Your task to perform on an android device: create a new album in the google photos Image 0: 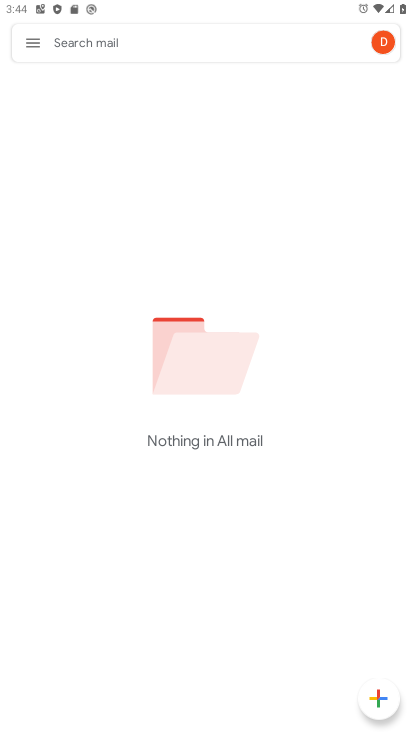
Step 0: press home button
Your task to perform on an android device: create a new album in the google photos Image 1: 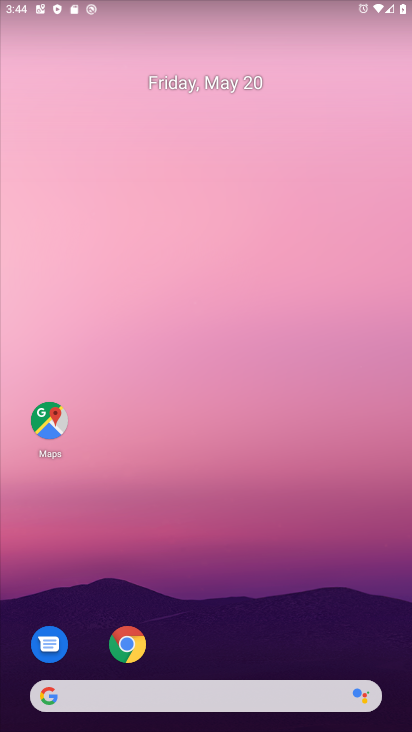
Step 1: drag from (266, 626) to (252, 67)
Your task to perform on an android device: create a new album in the google photos Image 2: 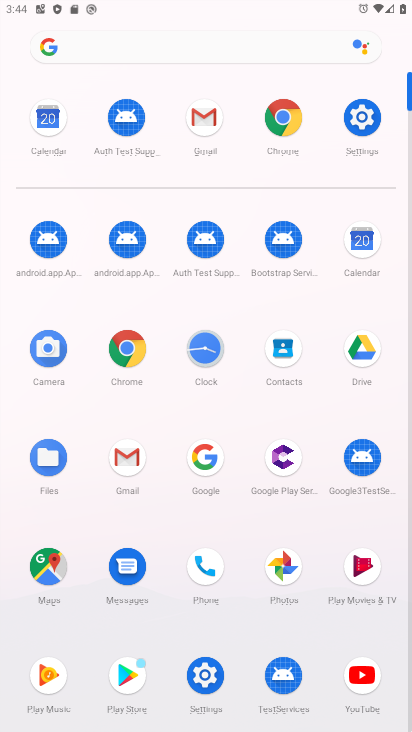
Step 2: click (283, 588)
Your task to perform on an android device: create a new album in the google photos Image 3: 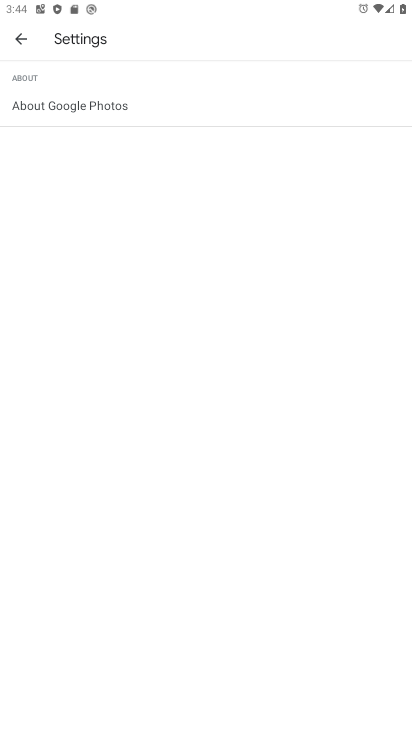
Step 3: press home button
Your task to perform on an android device: create a new album in the google photos Image 4: 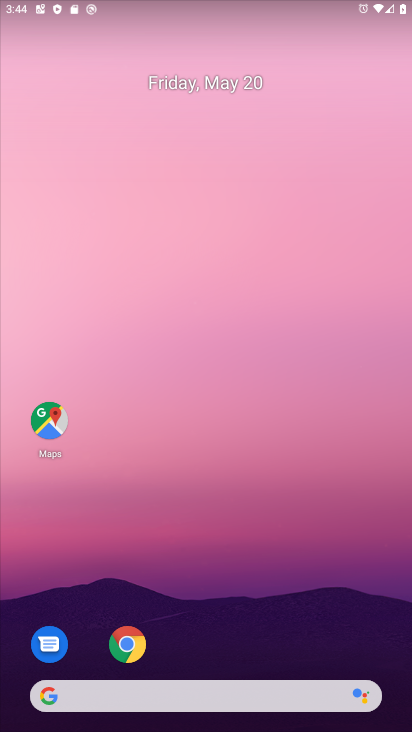
Step 4: drag from (271, 652) to (216, 103)
Your task to perform on an android device: create a new album in the google photos Image 5: 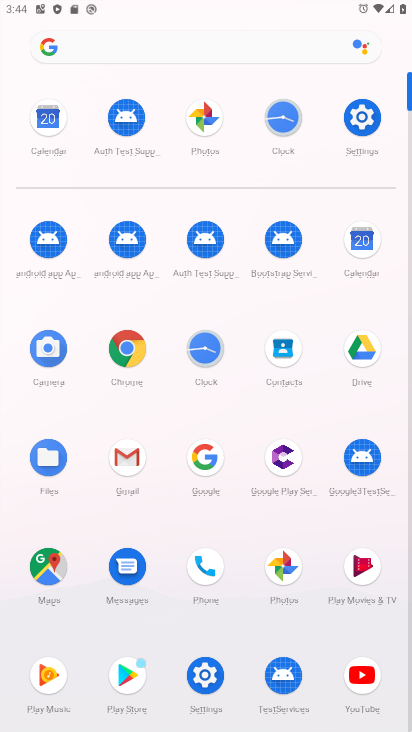
Step 5: click (201, 148)
Your task to perform on an android device: create a new album in the google photos Image 6: 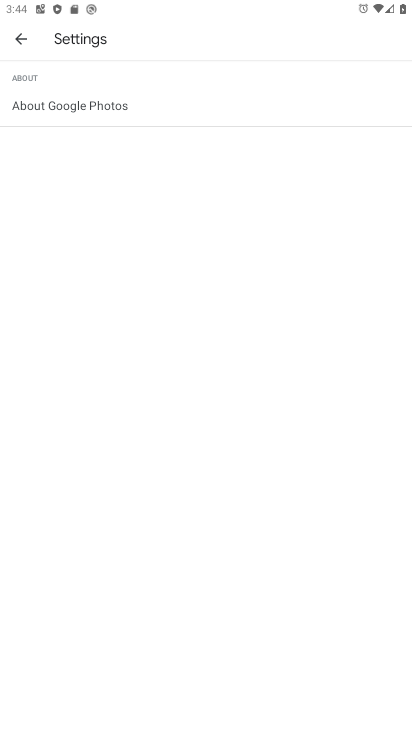
Step 6: click (18, 33)
Your task to perform on an android device: create a new album in the google photos Image 7: 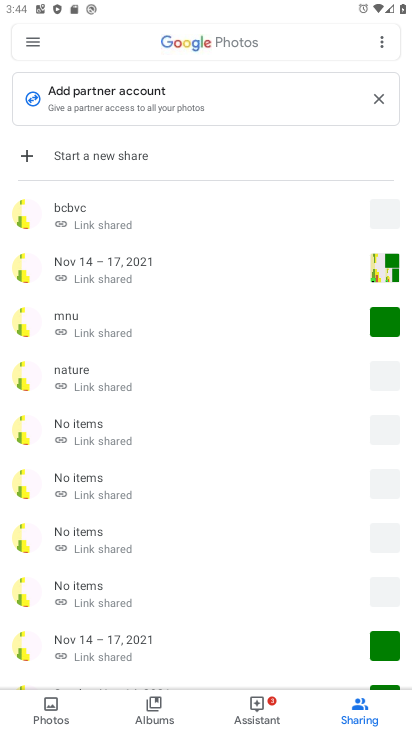
Step 7: click (18, 33)
Your task to perform on an android device: create a new album in the google photos Image 8: 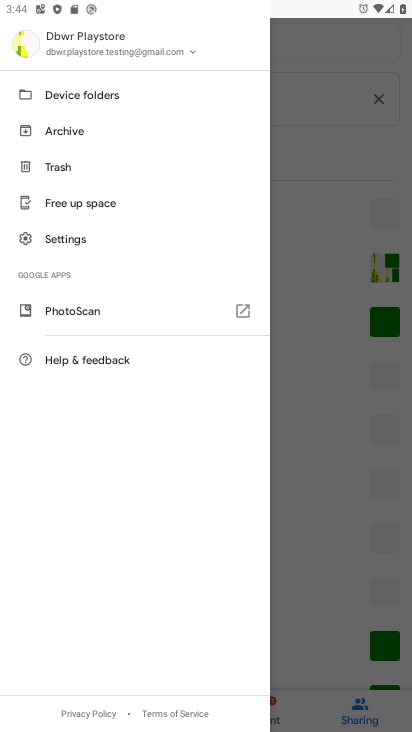
Step 8: click (346, 125)
Your task to perform on an android device: create a new album in the google photos Image 9: 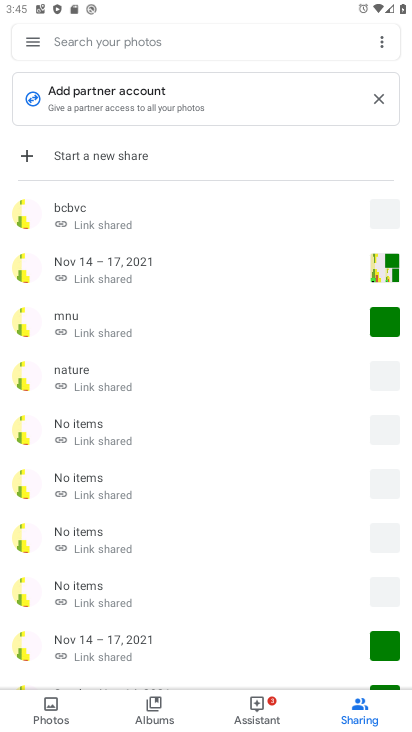
Step 9: click (132, 721)
Your task to perform on an android device: create a new album in the google photos Image 10: 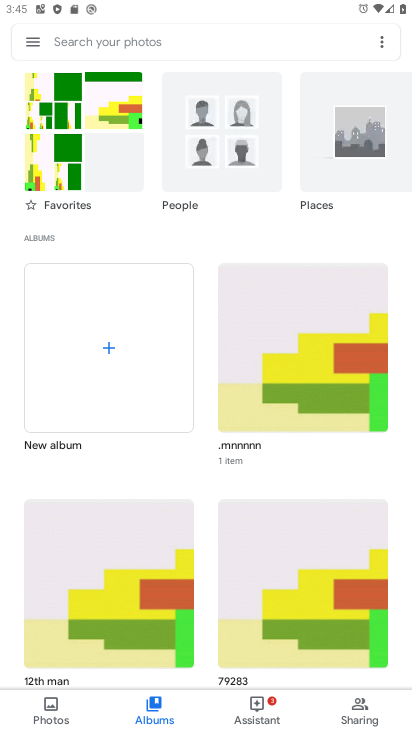
Step 10: click (159, 343)
Your task to perform on an android device: create a new album in the google photos Image 11: 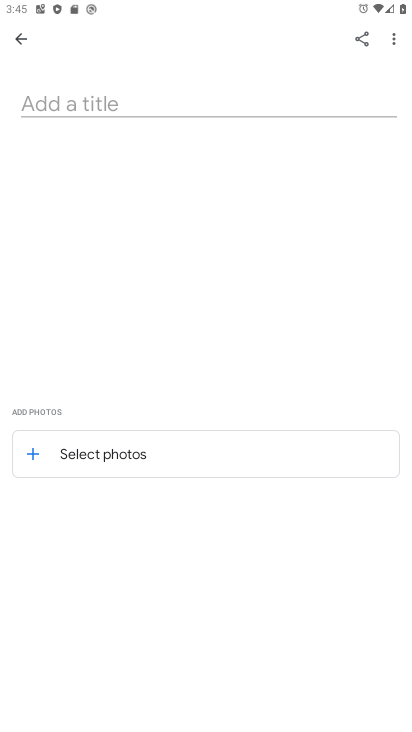
Step 11: click (116, 90)
Your task to perform on an android device: create a new album in the google photos Image 12: 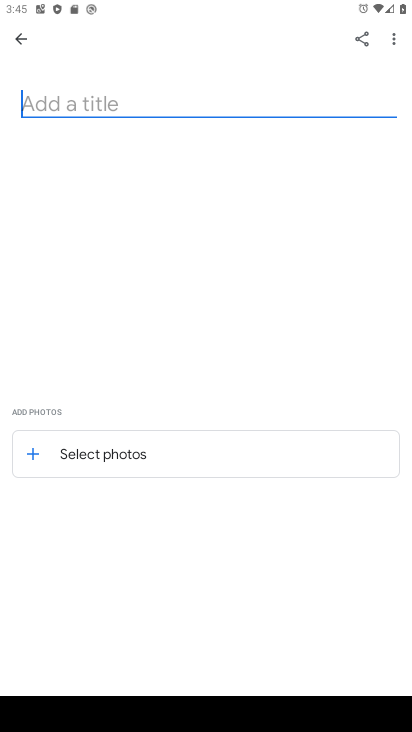
Step 12: type "sdfdsff"
Your task to perform on an android device: create a new album in the google photos Image 13: 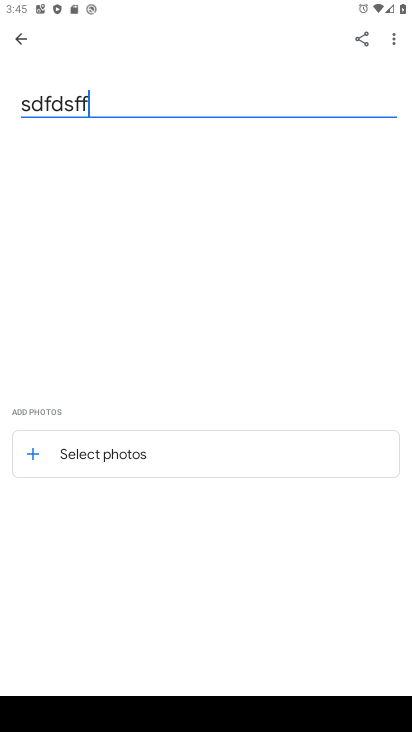
Step 13: click (74, 442)
Your task to perform on an android device: create a new album in the google photos Image 14: 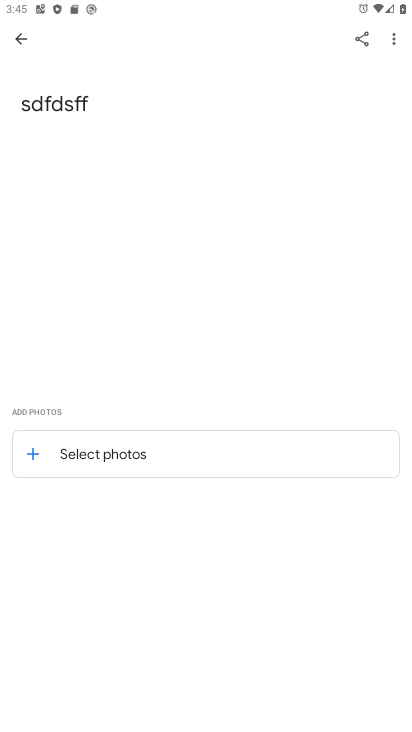
Step 14: click (128, 463)
Your task to perform on an android device: create a new album in the google photos Image 15: 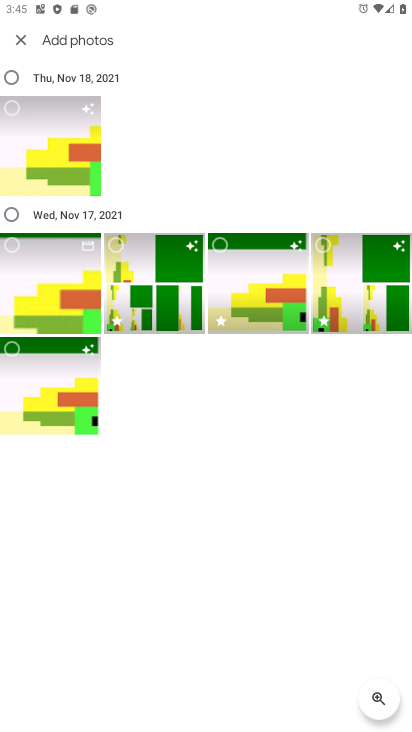
Step 15: click (23, 80)
Your task to perform on an android device: create a new album in the google photos Image 16: 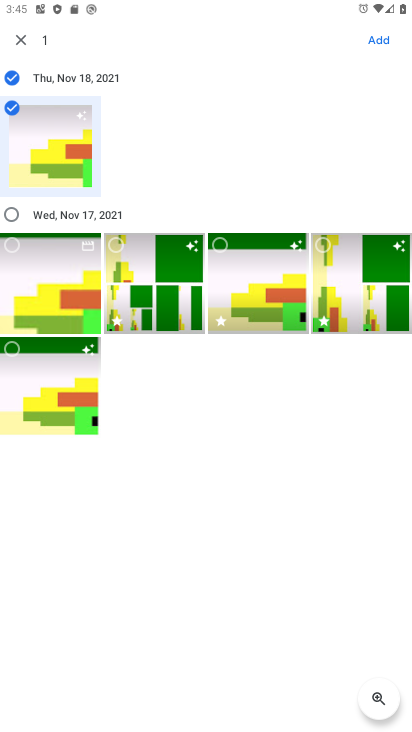
Step 16: click (49, 224)
Your task to perform on an android device: create a new album in the google photos Image 17: 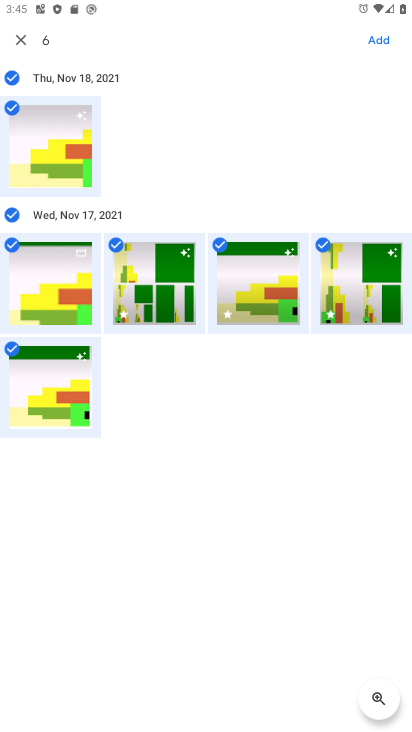
Step 17: click (380, 41)
Your task to perform on an android device: create a new album in the google photos Image 18: 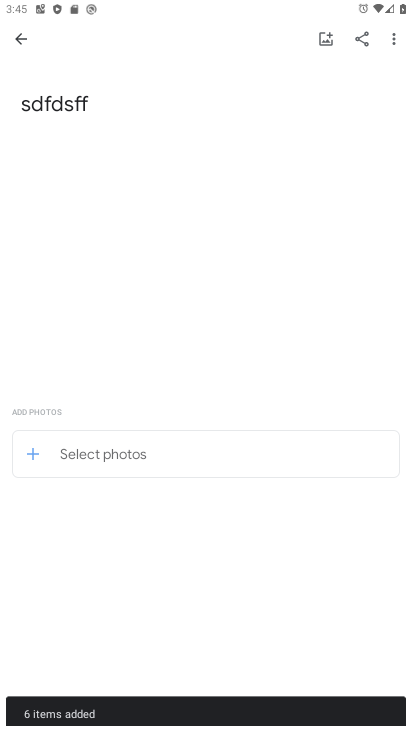
Step 18: task complete